Your task to perform on an android device: Is it going to rain today? Image 0: 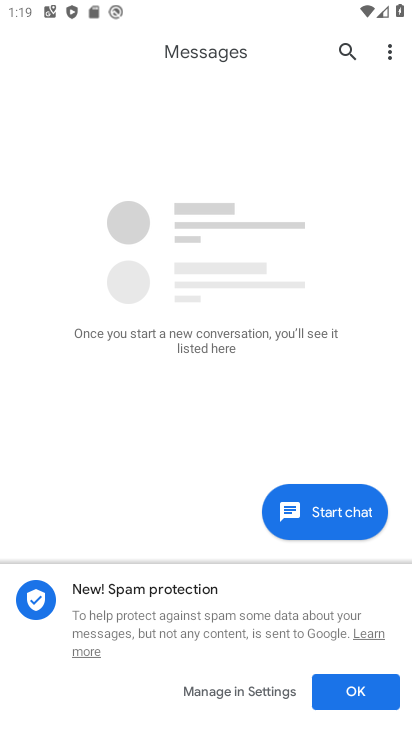
Step 0: press back button
Your task to perform on an android device: Is it going to rain today? Image 1: 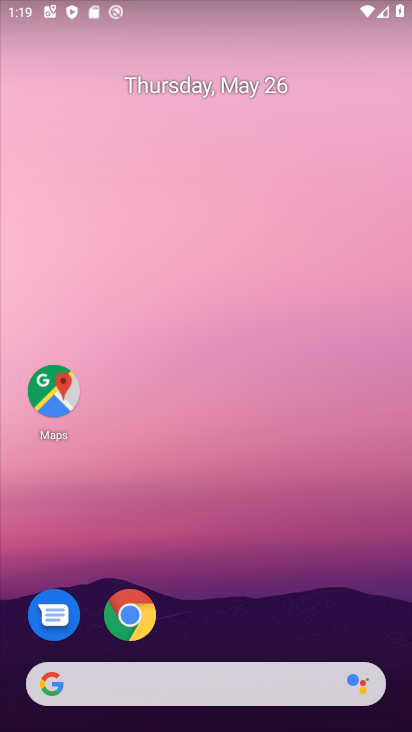
Step 1: drag from (228, 646) to (240, 154)
Your task to perform on an android device: Is it going to rain today? Image 2: 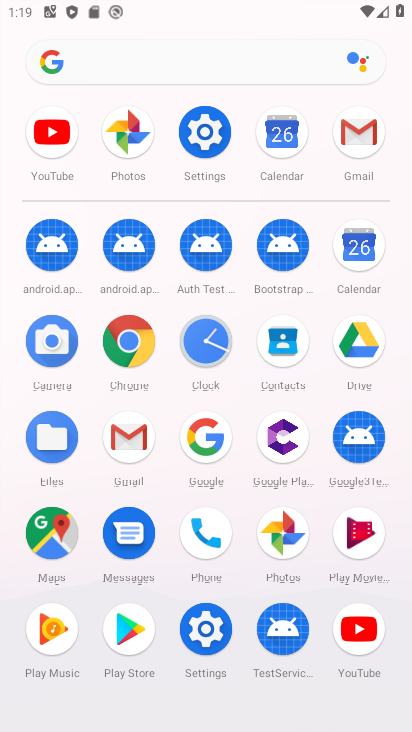
Step 2: click (155, 70)
Your task to perform on an android device: Is it going to rain today? Image 3: 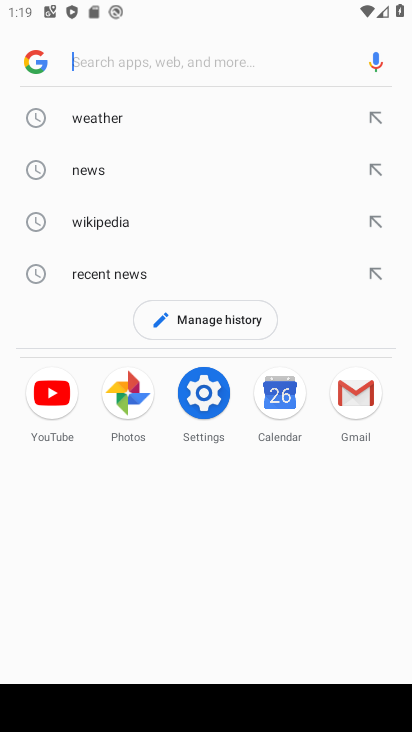
Step 3: click (97, 116)
Your task to perform on an android device: Is it going to rain today? Image 4: 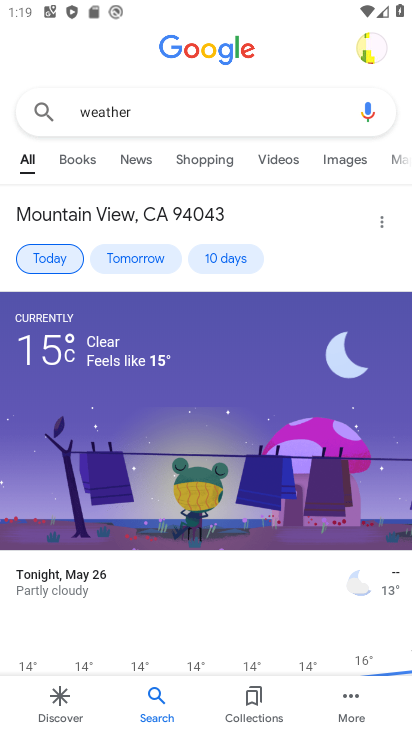
Step 4: click (50, 268)
Your task to perform on an android device: Is it going to rain today? Image 5: 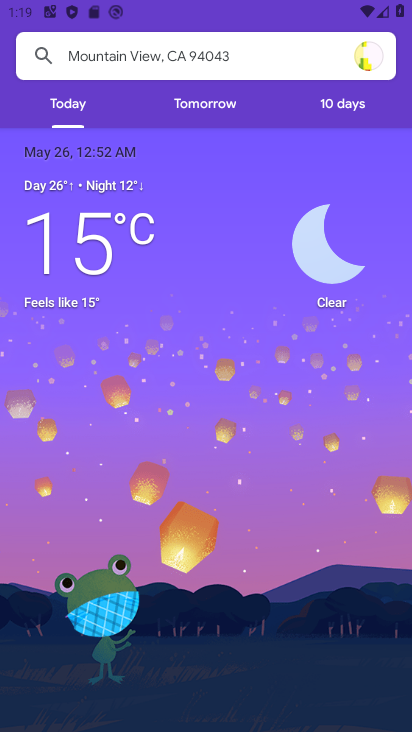
Step 5: task complete